Your task to perform on an android device: open app "Life360: Find Family & Friends" Image 0: 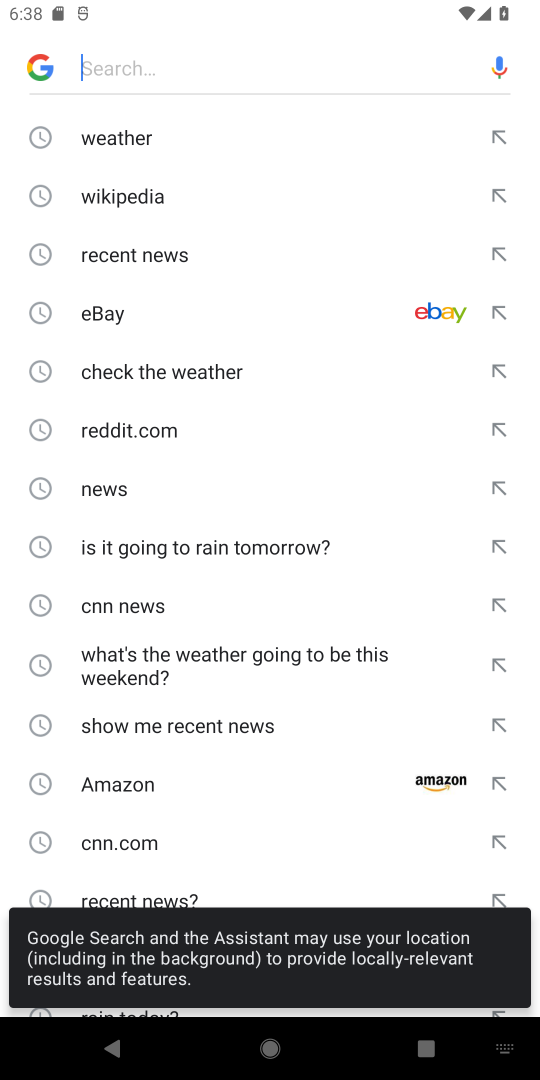
Step 0: press home button
Your task to perform on an android device: open app "Life360: Find Family & Friends" Image 1: 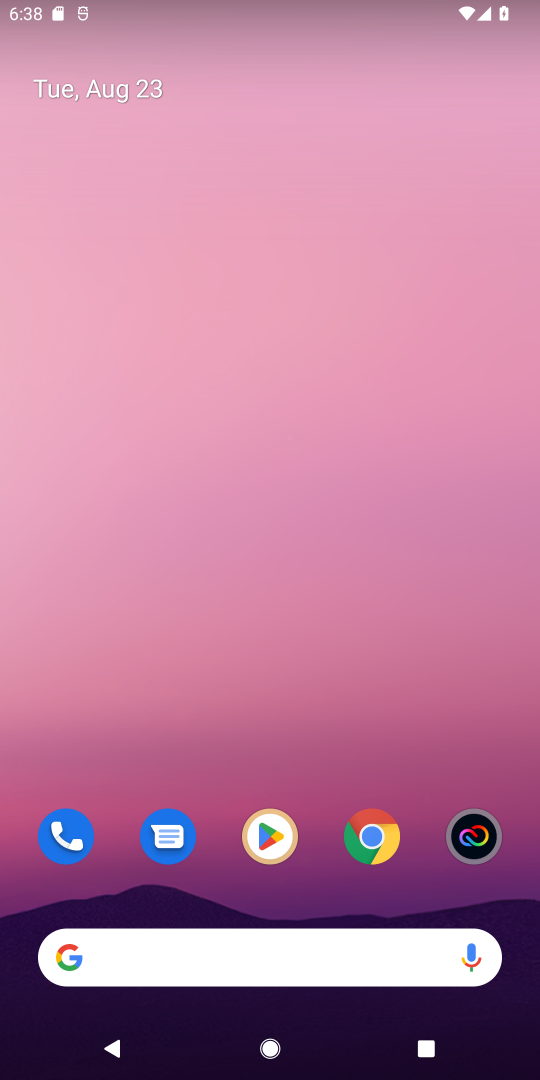
Step 1: click (257, 844)
Your task to perform on an android device: open app "Life360: Find Family & Friends" Image 2: 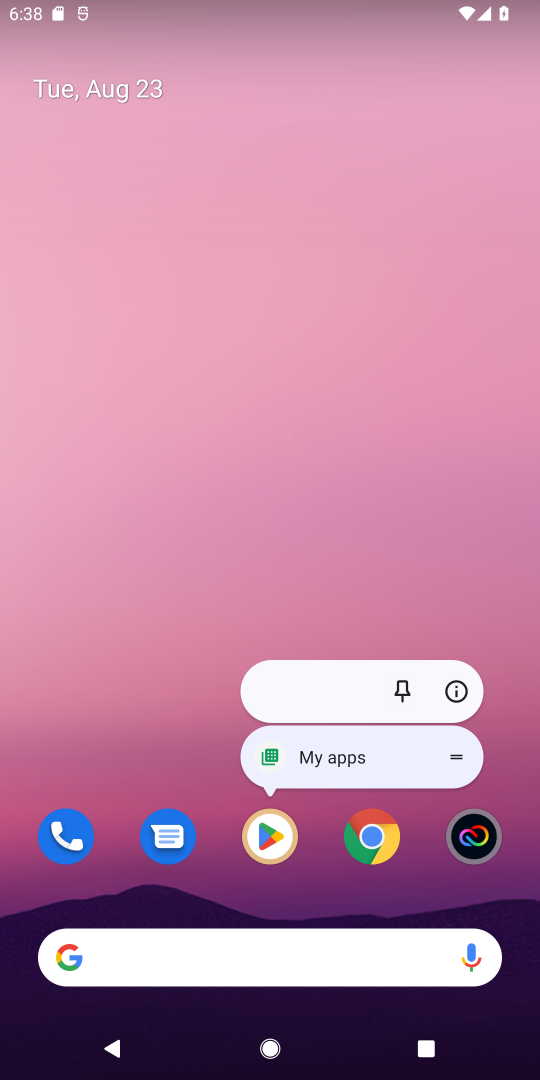
Step 2: click (270, 843)
Your task to perform on an android device: open app "Life360: Find Family & Friends" Image 3: 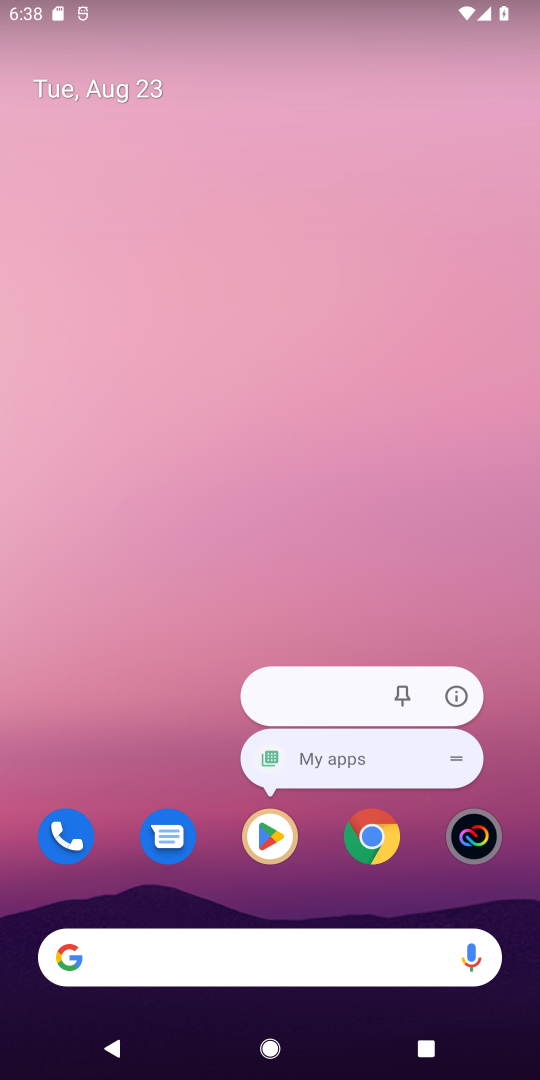
Step 3: click (270, 843)
Your task to perform on an android device: open app "Life360: Find Family & Friends" Image 4: 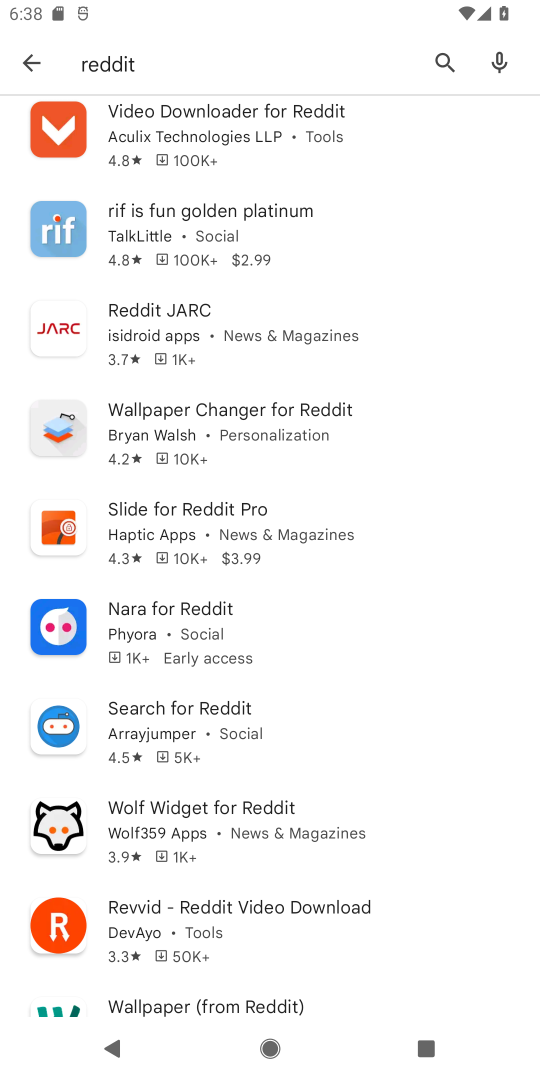
Step 4: click (444, 63)
Your task to perform on an android device: open app "Life360: Find Family & Friends" Image 5: 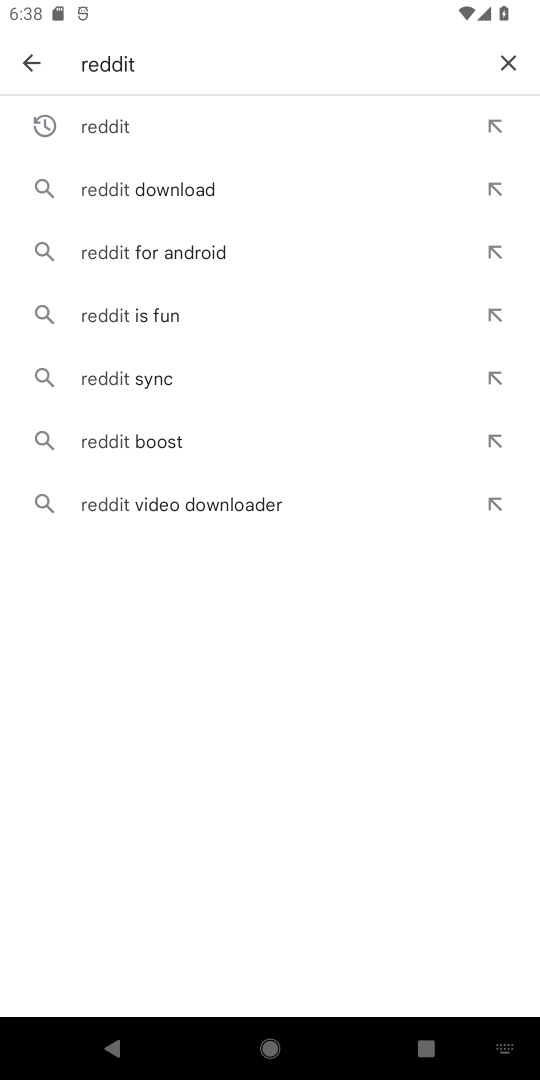
Step 5: click (505, 56)
Your task to perform on an android device: open app "Life360: Find Family & Friends" Image 6: 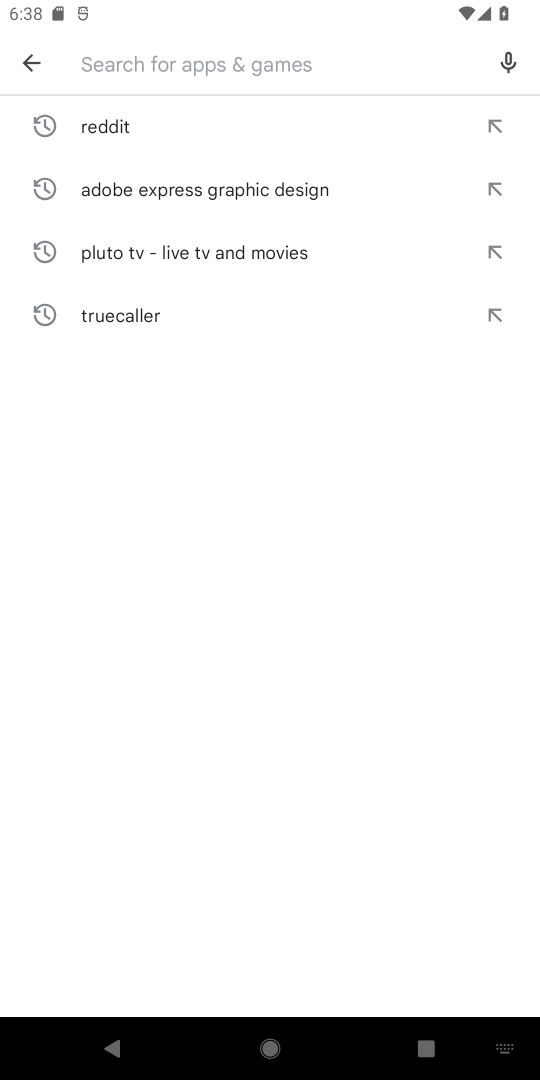
Step 6: type "Life360: Find Family & Friends"
Your task to perform on an android device: open app "Life360: Find Family & Friends" Image 7: 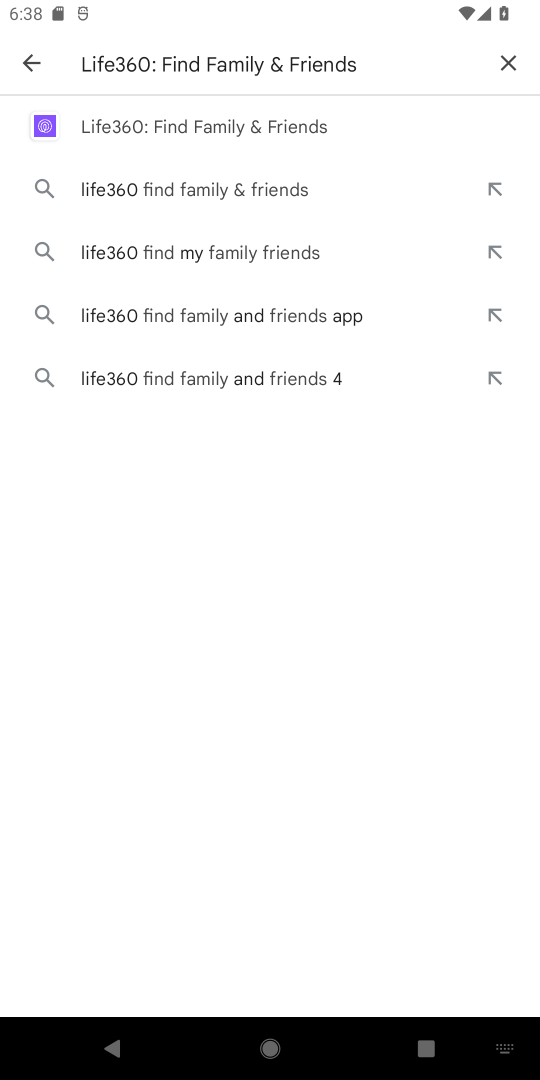
Step 7: click (290, 129)
Your task to perform on an android device: open app "Life360: Find Family & Friends" Image 8: 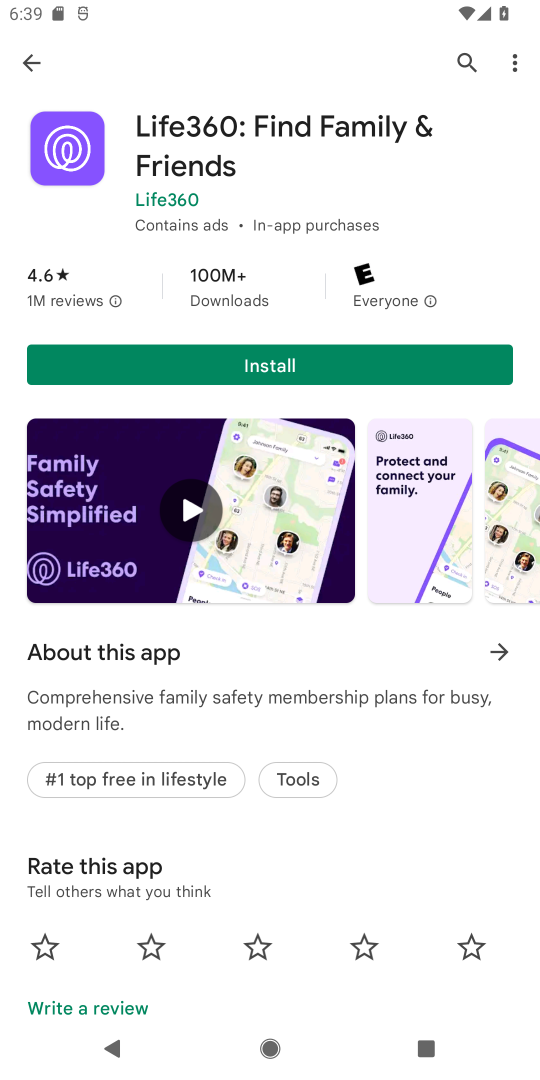
Step 8: task complete